Your task to perform on an android device: turn smart compose on in the gmail app Image 0: 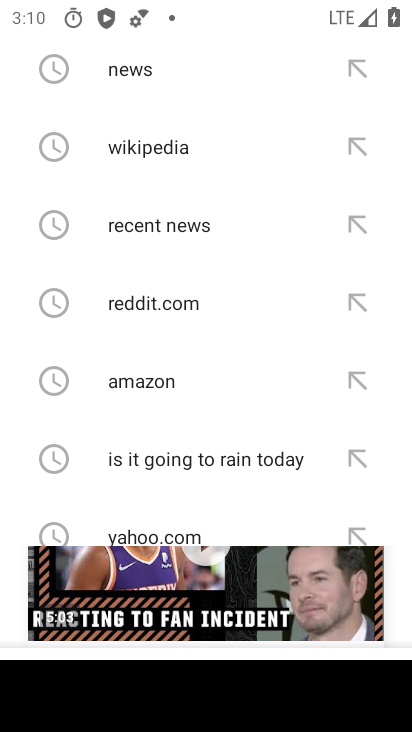
Step 0: press home button
Your task to perform on an android device: turn smart compose on in the gmail app Image 1: 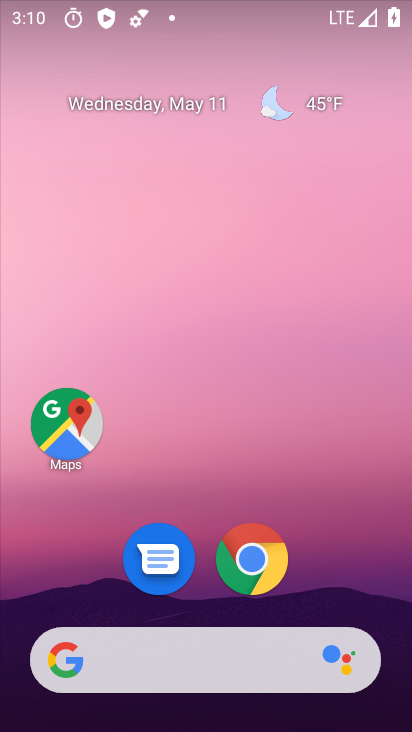
Step 1: drag from (359, 512) to (276, 79)
Your task to perform on an android device: turn smart compose on in the gmail app Image 2: 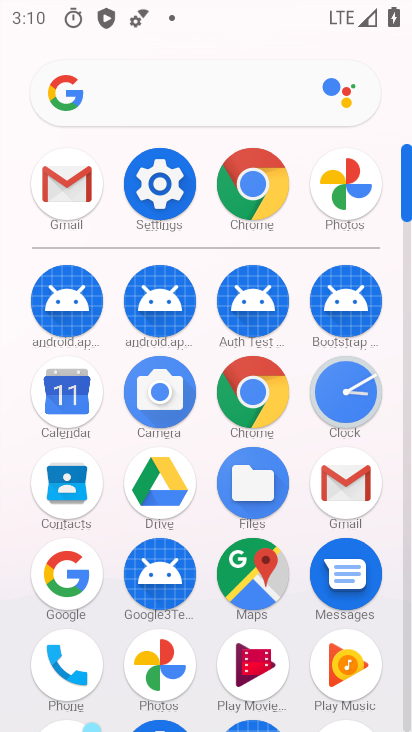
Step 2: click (347, 490)
Your task to perform on an android device: turn smart compose on in the gmail app Image 3: 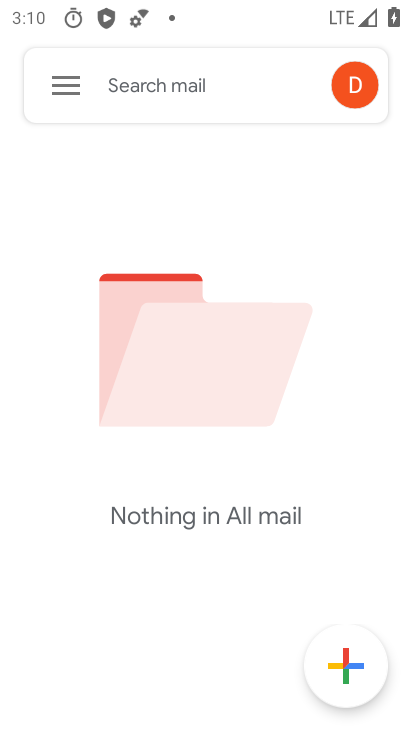
Step 3: click (61, 96)
Your task to perform on an android device: turn smart compose on in the gmail app Image 4: 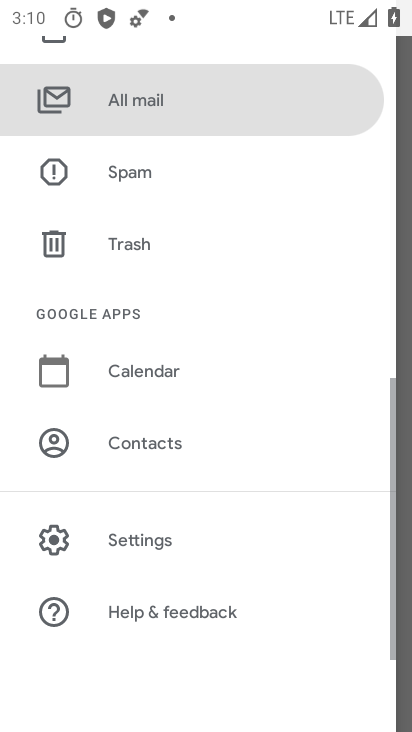
Step 4: click (170, 547)
Your task to perform on an android device: turn smart compose on in the gmail app Image 5: 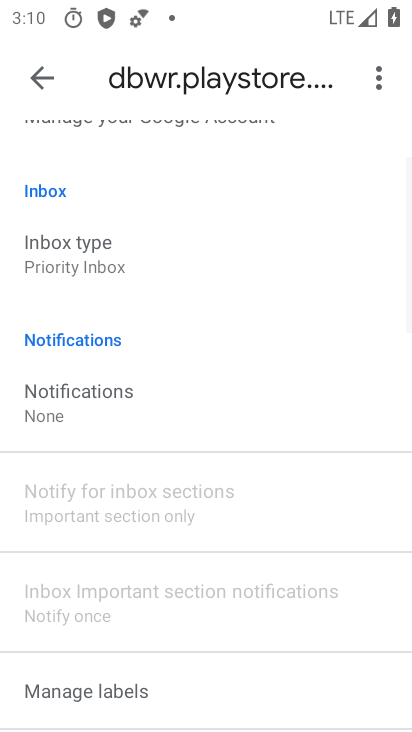
Step 5: drag from (152, 560) to (200, 187)
Your task to perform on an android device: turn smart compose on in the gmail app Image 6: 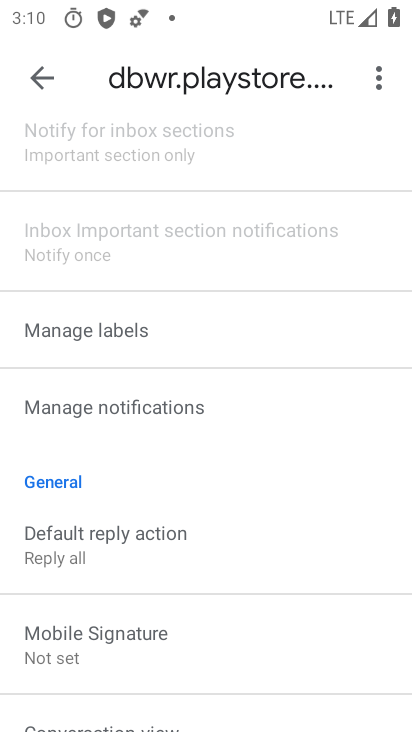
Step 6: drag from (226, 625) to (226, 296)
Your task to perform on an android device: turn smart compose on in the gmail app Image 7: 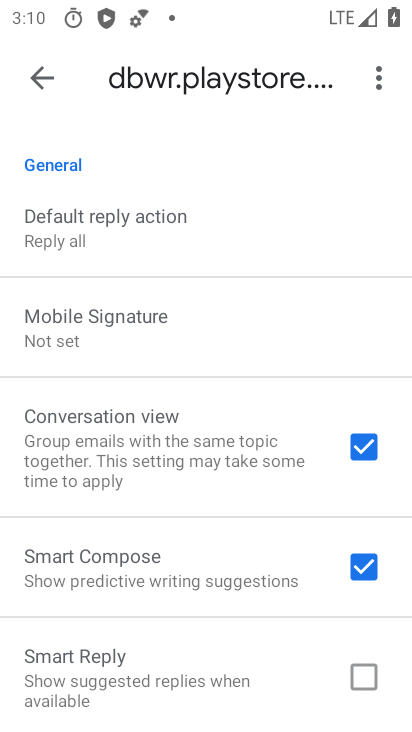
Step 7: click (368, 566)
Your task to perform on an android device: turn smart compose on in the gmail app Image 8: 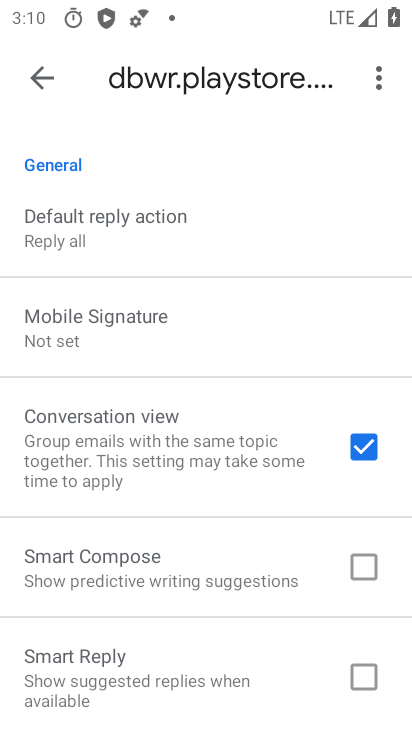
Step 8: task complete